Your task to perform on an android device: set the timer Image 0: 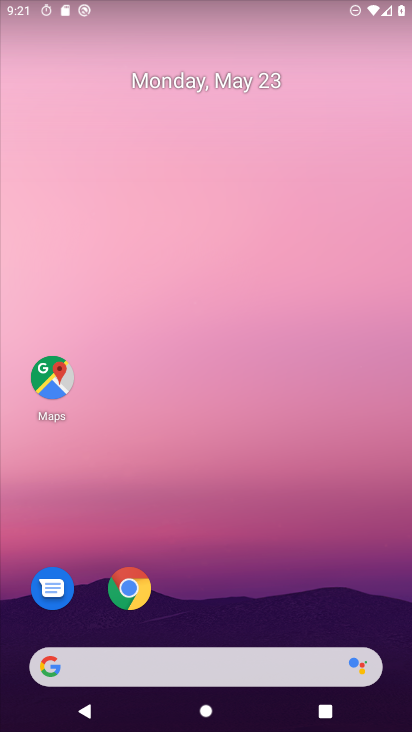
Step 0: drag from (401, 693) to (381, 224)
Your task to perform on an android device: set the timer Image 1: 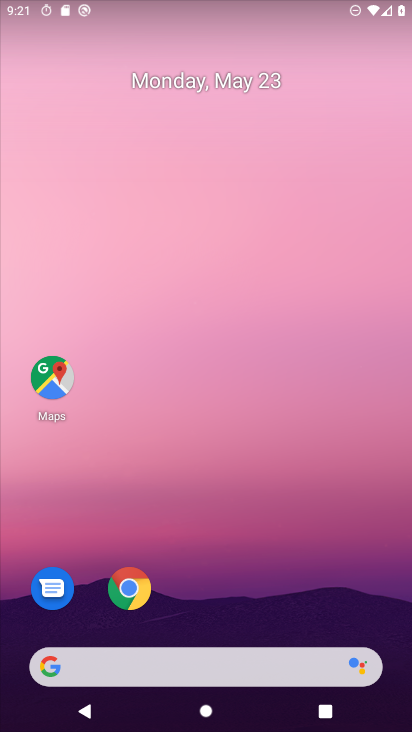
Step 1: drag from (396, 681) to (325, 229)
Your task to perform on an android device: set the timer Image 2: 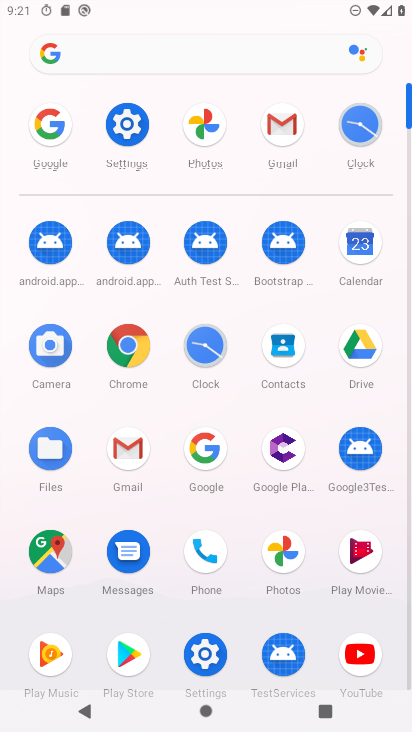
Step 2: click (350, 130)
Your task to perform on an android device: set the timer Image 3: 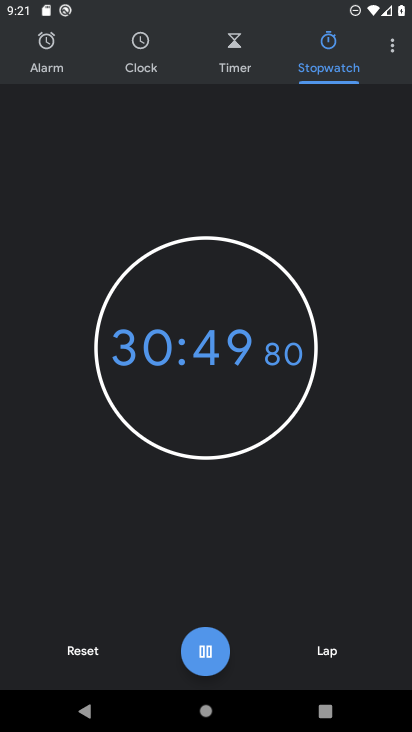
Step 3: click (89, 652)
Your task to perform on an android device: set the timer Image 4: 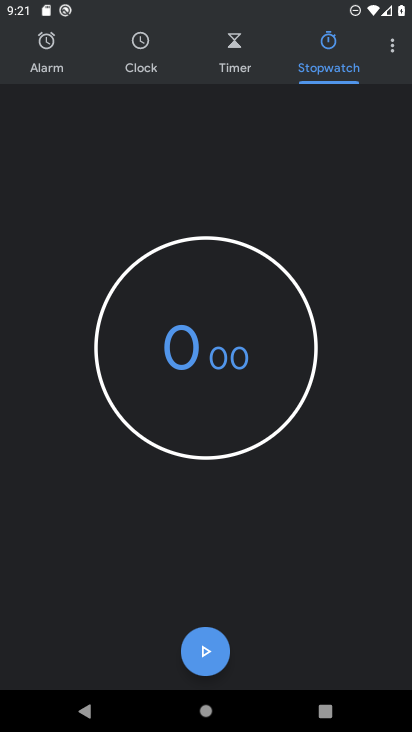
Step 4: click (202, 653)
Your task to perform on an android device: set the timer Image 5: 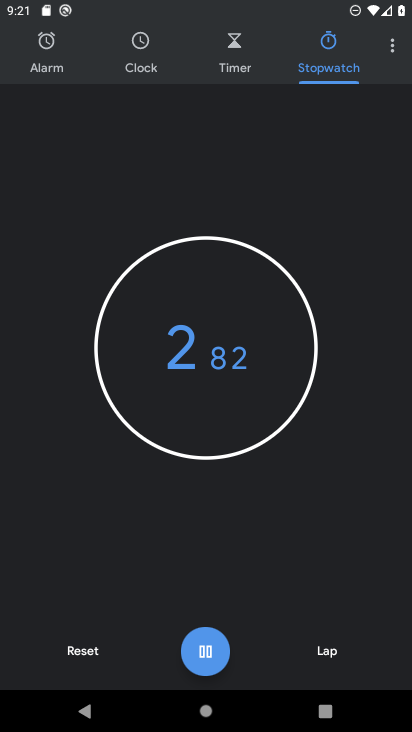
Step 5: task complete